Your task to perform on an android device: open chrome and create a bookmark for the current page Image 0: 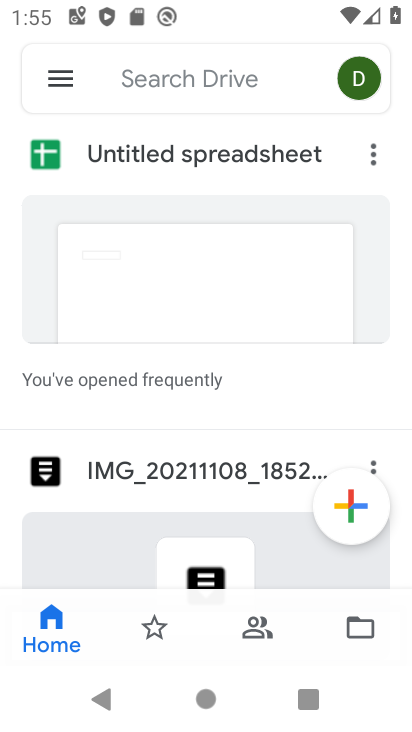
Step 0: press home button
Your task to perform on an android device: open chrome and create a bookmark for the current page Image 1: 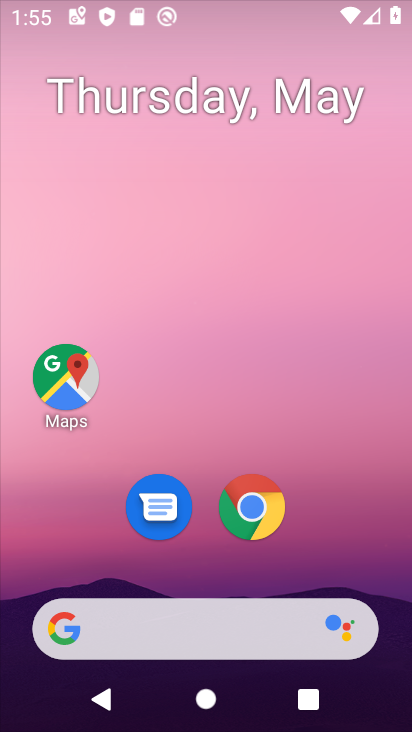
Step 1: drag from (366, 673) to (375, 48)
Your task to perform on an android device: open chrome and create a bookmark for the current page Image 2: 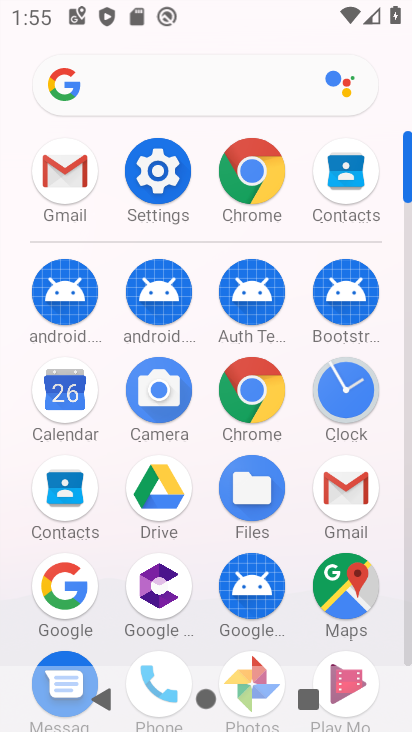
Step 2: click (238, 385)
Your task to perform on an android device: open chrome and create a bookmark for the current page Image 3: 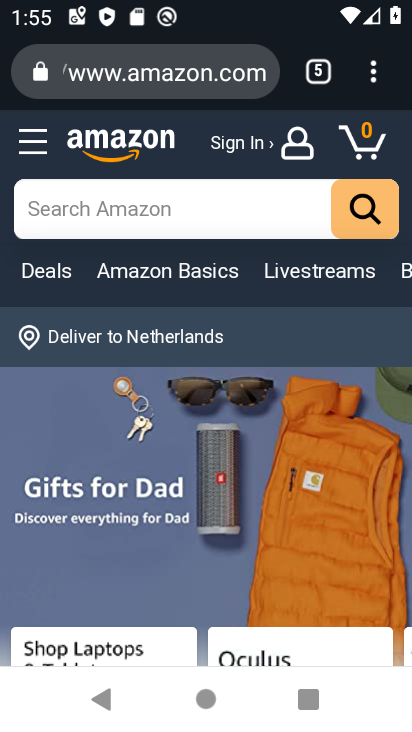
Step 3: task complete